Your task to perform on an android device: open a bookmark in the chrome app Image 0: 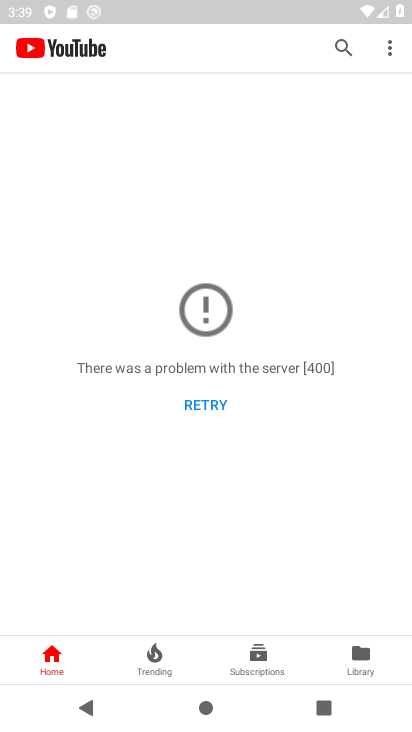
Step 0: press home button
Your task to perform on an android device: open a bookmark in the chrome app Image 1: 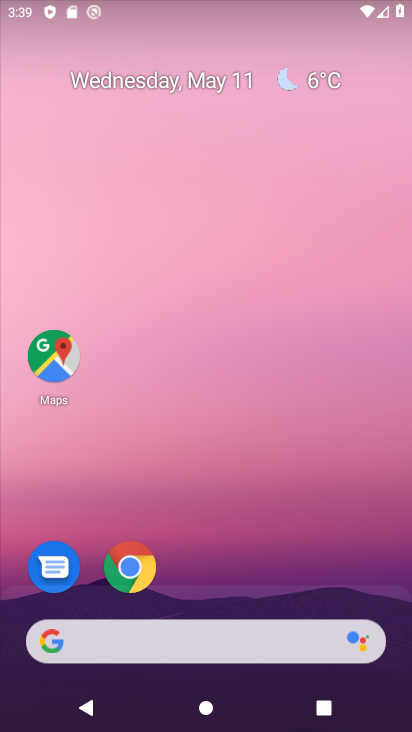
Step 1: drag from (277, 529) to (271, 315)
Your task to perform on an android device: open a bookmark in the chrome app Image 2: 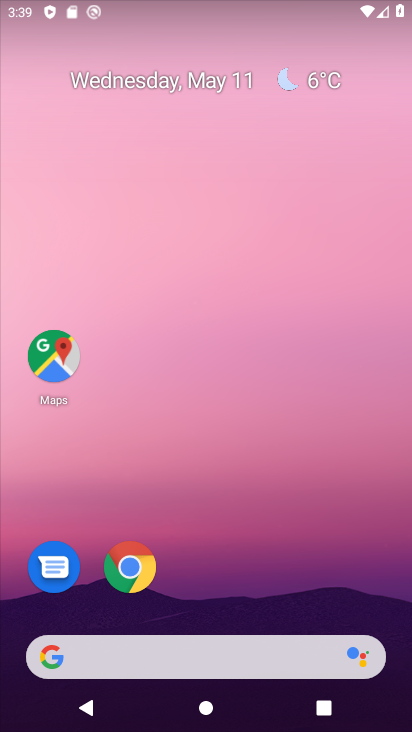
Step 2: drag from (235, 582) to (251, 244)
Your task to perform on an android device: open a bookmark in the chrome app Image 3: 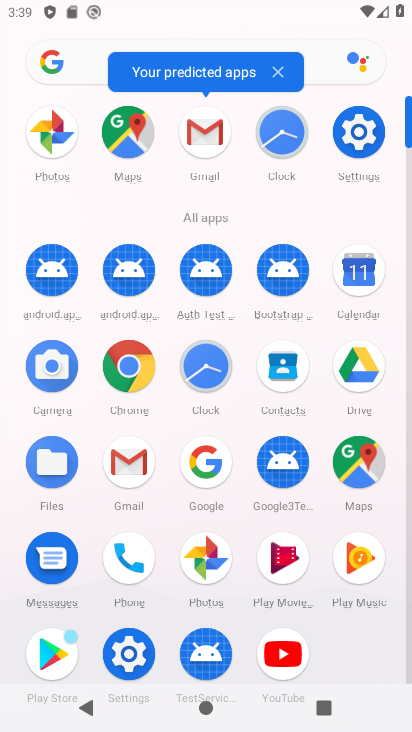
Step 3: click (118, 361)
Your task to perform on an android device: open a bookmark in the chrome app Image 4: 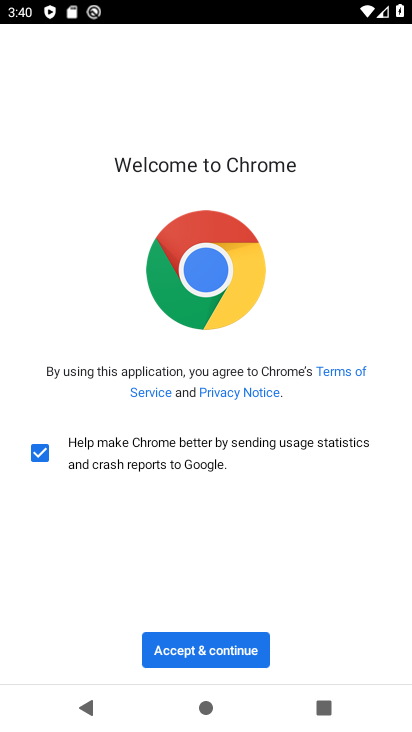
Step 4: click (178, 638)
Your task to perform on an android device: open a bookmark in the chrome app Image 5: 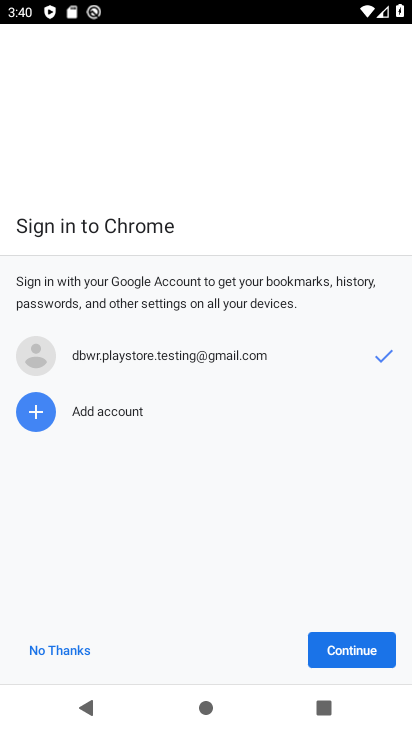
Step 5: click (338, 635)
Your task to perform on an android device: open a bookmark in the chrome app Image 6: 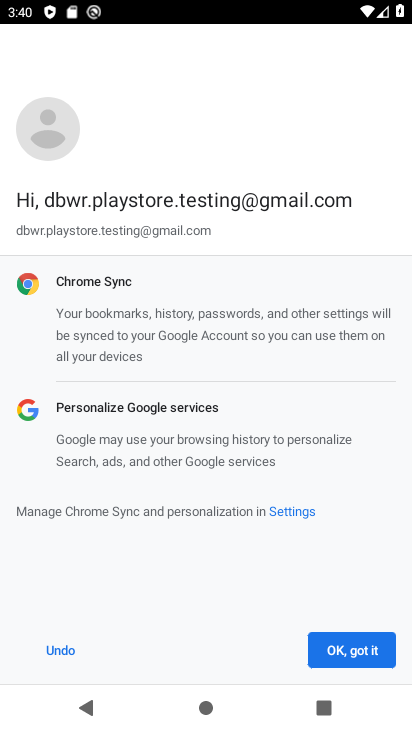
Step 6: click (343, 640)
Your task to perform on an android device: open a bookmark in the chrome app Image 7: 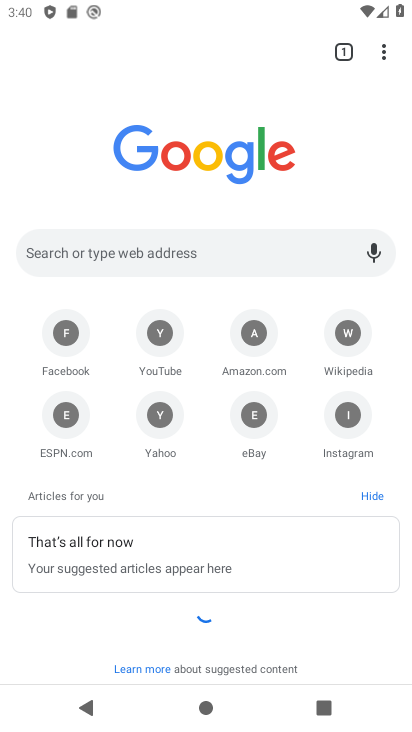
Step 7: click (379, 59)
Your task to perform on an android device: open a bookmark in the chrome app Image 8: 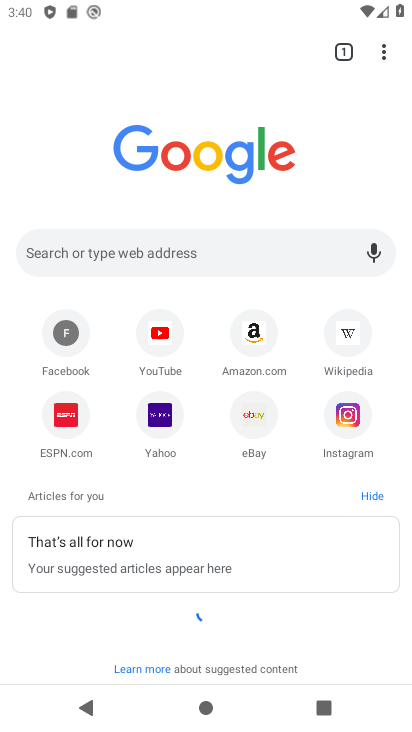
Step 8: click (371, 52)
Your task to perform on an android device: open a bookmark in the chrome app Image 9: 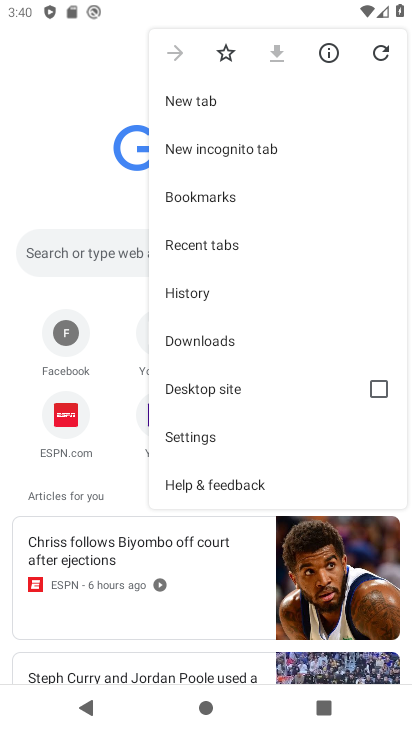
Step 9: click (203, 192)
Your task to perform on an android device: open a bookmark in the chrome app Image 10: 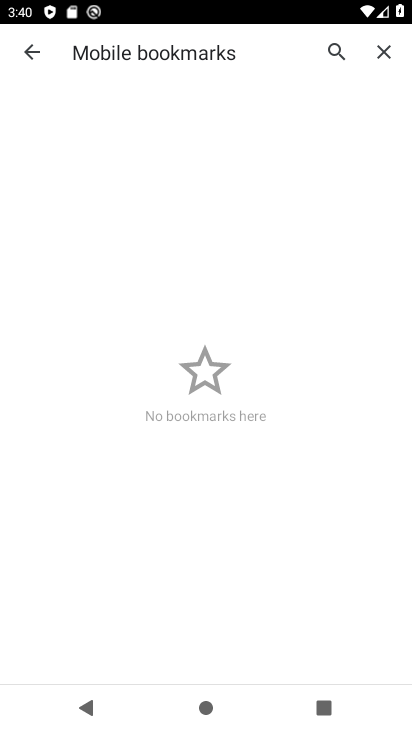
Step 10: task complete